Your task to perform on an android device: empty trash in the gmail app Image 0: 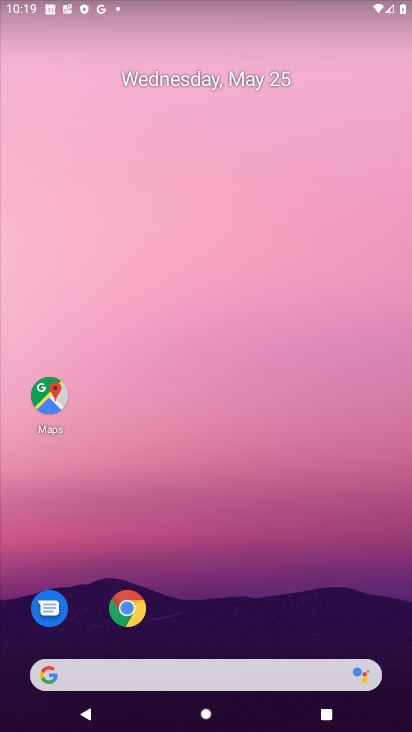
Step 0: drag from (258, 653) to (249, 18)
Your task to perform on an android device: empty trash in the gmail app Image 1: 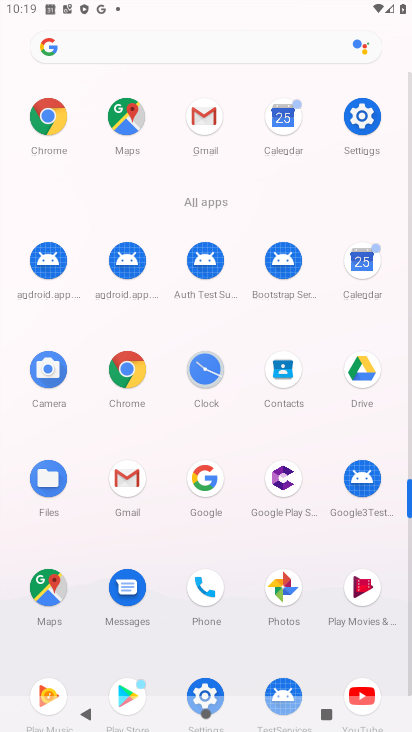
Step 1: click (206, 120)
Your task to perform on an android device: empty trash in the gmail app Image 2: 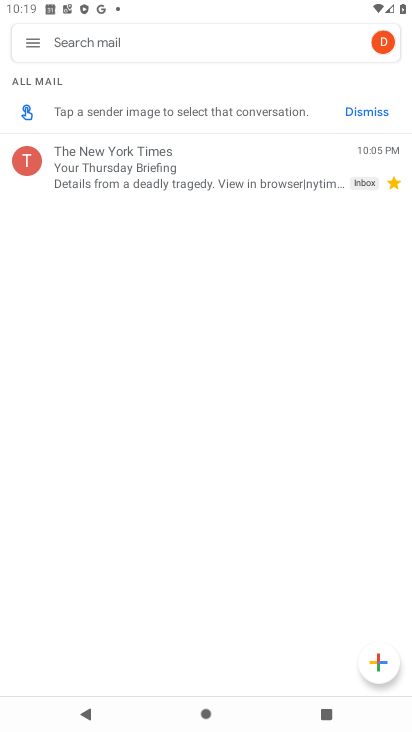
Step 2: click (25, 44)
Your task to perform on an android device: empty trash in the gmail app Image 3: 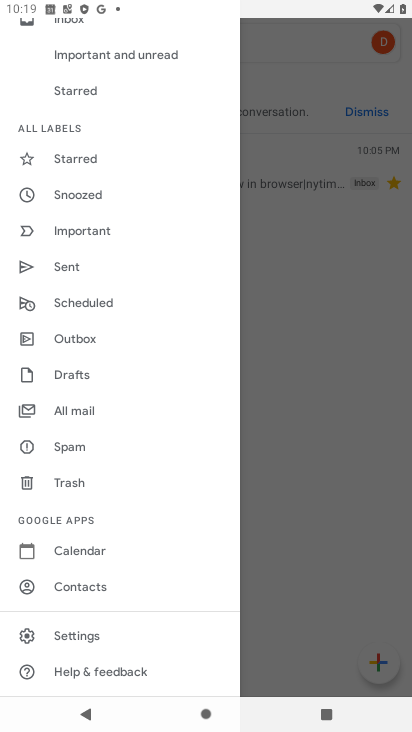
Step 3: click (63, 483)
Your task to perform on an android device: empty trash in the gmail app Image 4: 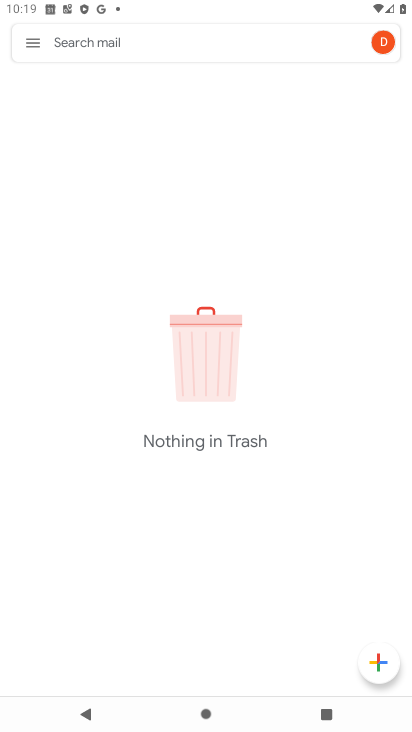
Step 4: task complete